Your task to perform on an android device: delete a single message in the gmail app Image 0: 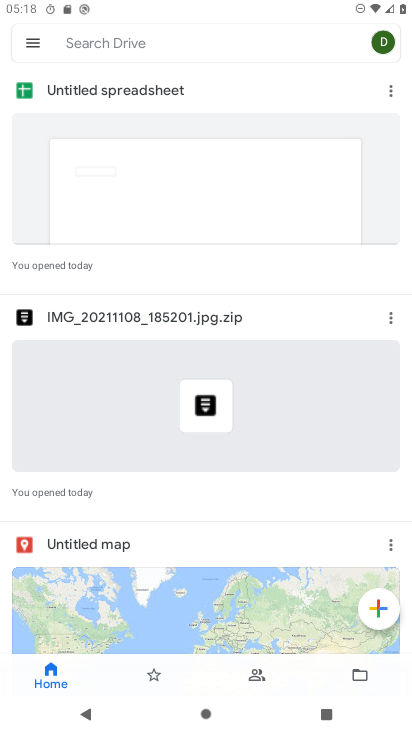
Step 0: press home button
Your task to perform on an android device: delete a single message in the gmail app Image 1: 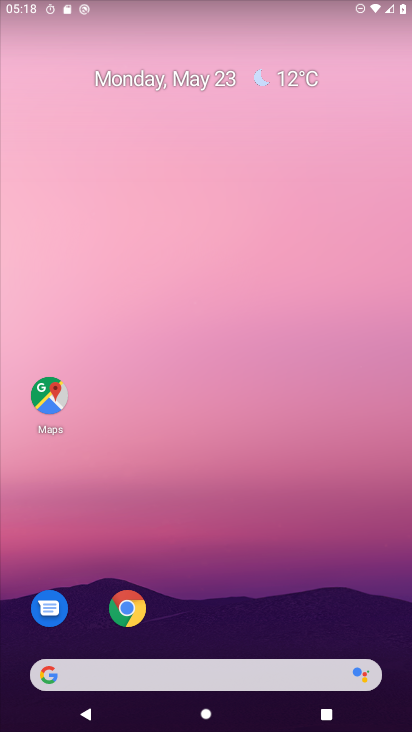
Step 1: drag from (285, 512) to (188, 0)
Your task to perform on an android device: delete a single message in the gmail app Image 2: 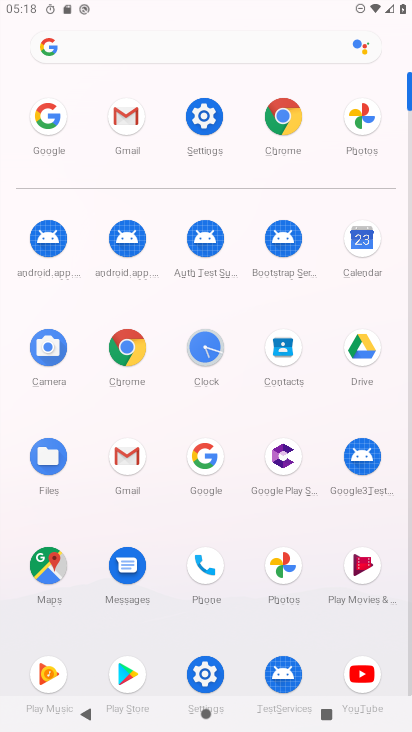
Step 2: click (129, 123)
Your task to perform on an android device: delete a single message in the gmail app Image 3: 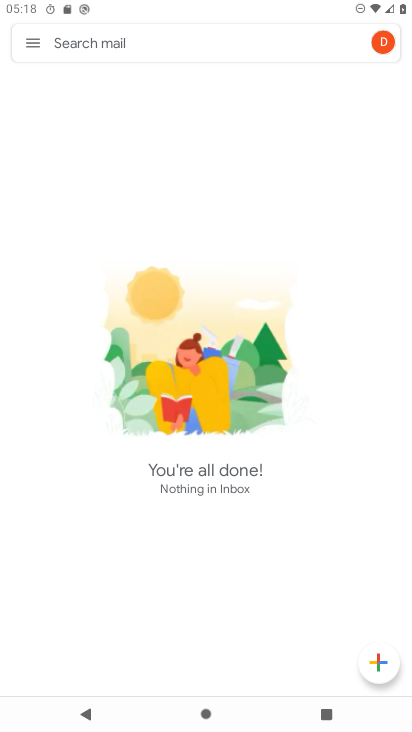
Step 3: click (35, 45)
Your task to perform on an android device: delete a single message in the gmail app Image 4: 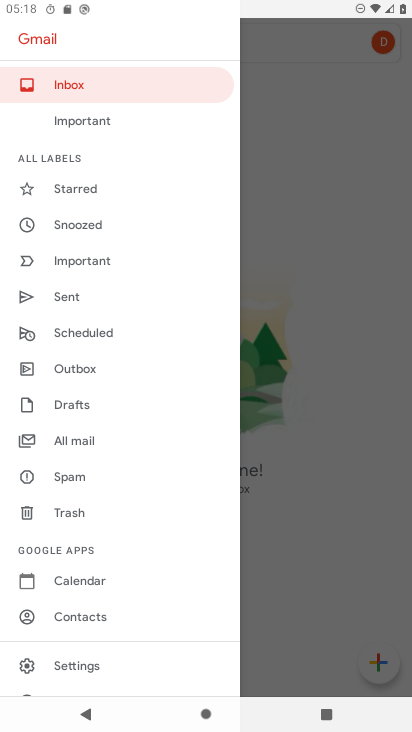
Step 4: click (115, 671)
Your task to perform on an android device: delete a single message in the gmail app Image 5: 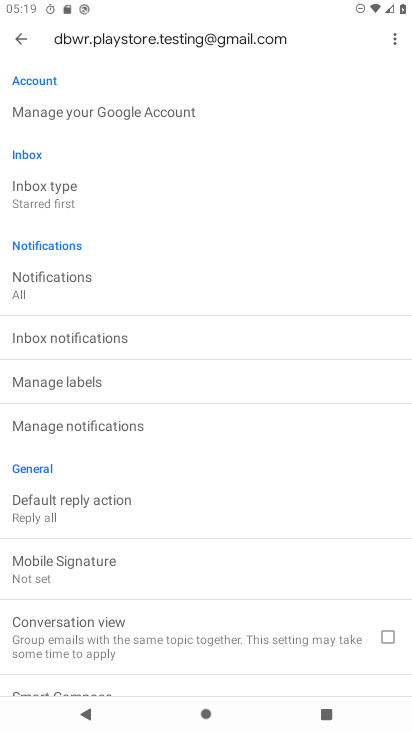
Step 5: task complete